Your task to perform on an android device: Search for the best rated kitchen reno kits on Lowes.com Image 0: 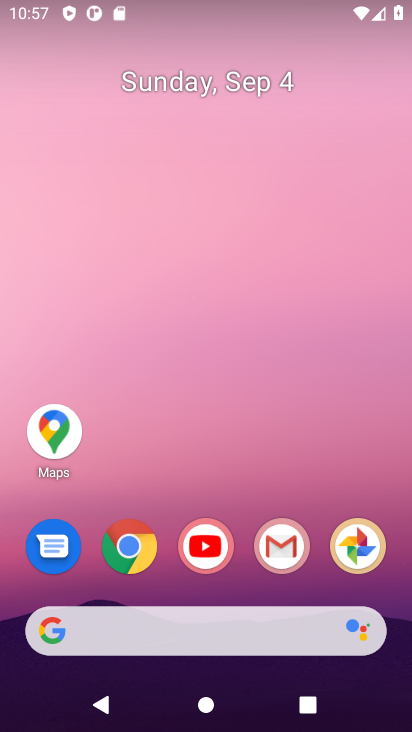
Step 0: click (127, 552)
Your task to perform on an android device: Search for the best rated kitchen reno kits on Lowes.com Image 1: 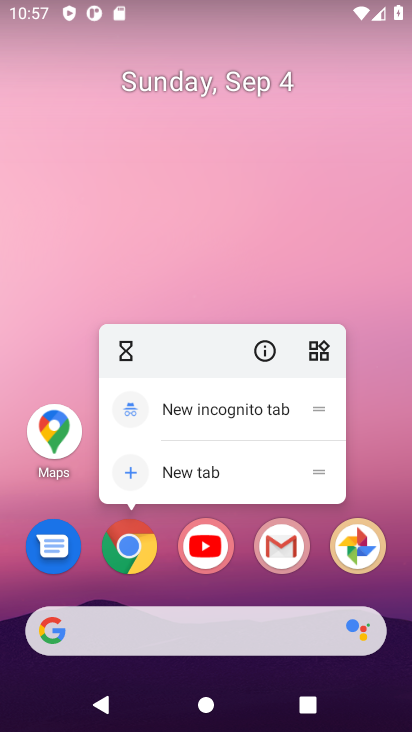
Step 1: click (126, 551)
Your task to perform on an android device: Search for the best rated kitchen reno kits on Lowes.com Image 2: 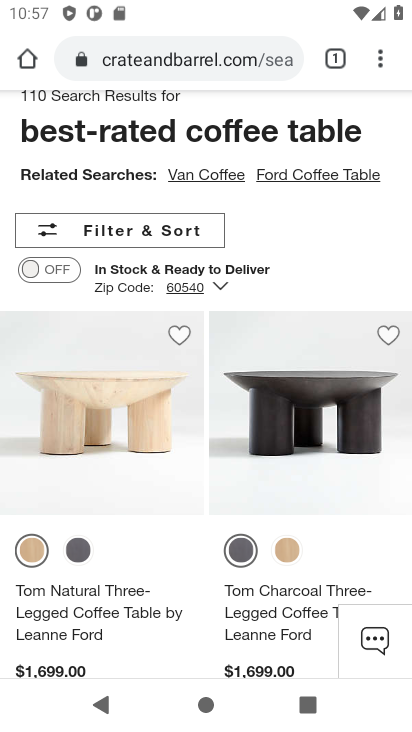
Step 2: click (159, 64)
Your task to perform on an android device: Search for the best rated kitchen reno kits on Lowes.com Image 3: 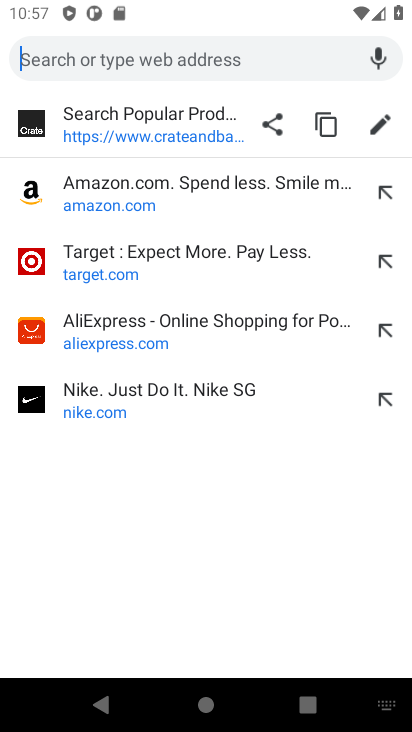
Step 3: type "Lowes.com"
Your task to perform on an android device: Search for the best rated kitchen reno kits on Lowes.com Image 4: 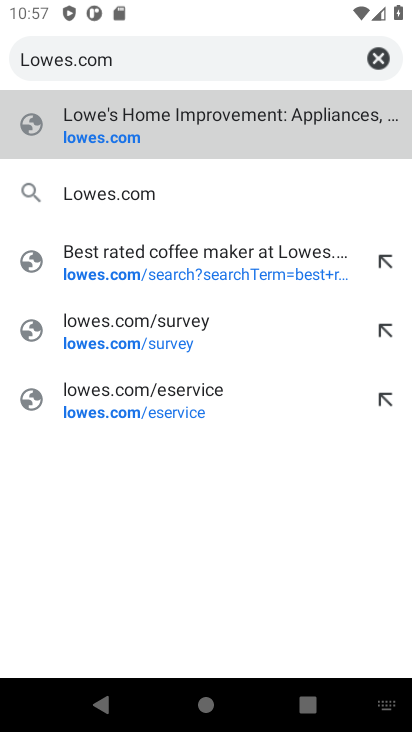
Step 4: click (106, 126)
Your task to perform on an android device: Search for the best rated kitchen reno kits on Lowes.com Image 5: 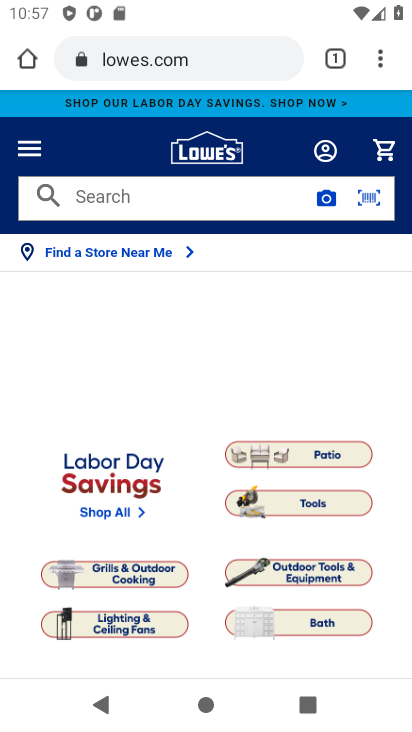
Step 5: click (96, 205)
Your task to perform on an android device: Search for the best rated kitchen reno kits on Lowes.com Image 6: 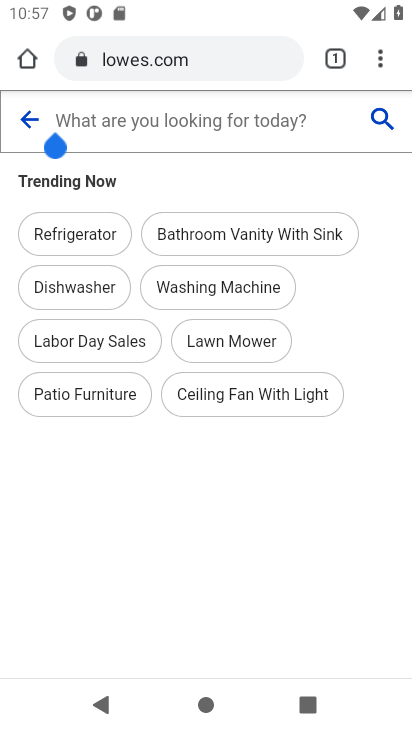
Step 6: type "best rated kitchen reno kits"
Your task to perform on an android device: Search for the best rated kitchen reno kits on Lowes.com Image 7: 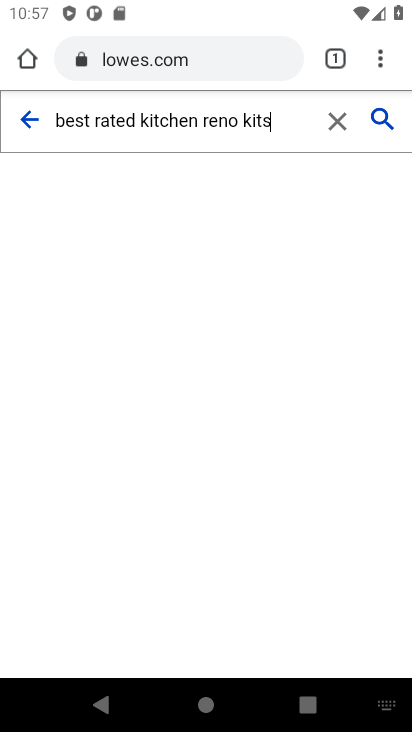
Step 7: click (378, 121)
Your task to perform on an android device: Search for the best rated kitchen reno kits on Lowes.com Image 8: 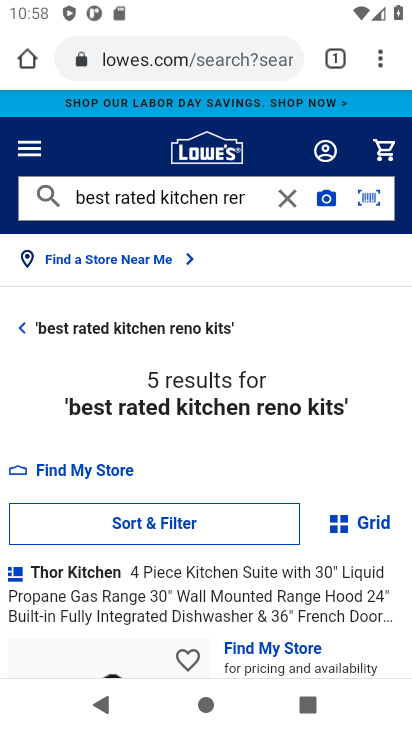
Step 8: task complete